Your task to perform on an android device: set the stopwatch Image 0: 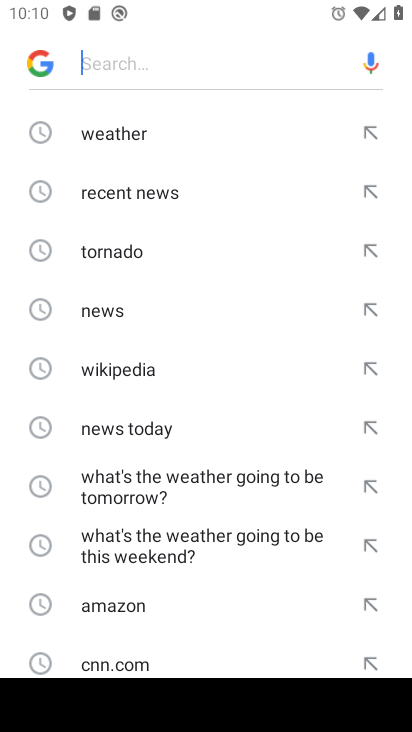
Step 0: press home button
Your task to perform on an android device: set the stopwatch Image 1: 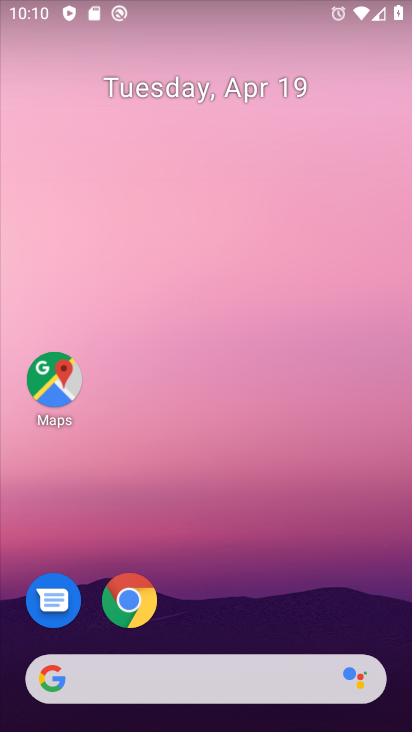
Step 1: drag from (237, 610) to (279, 18)
Your task to perform on an android device: set the stopwatch Image 2: 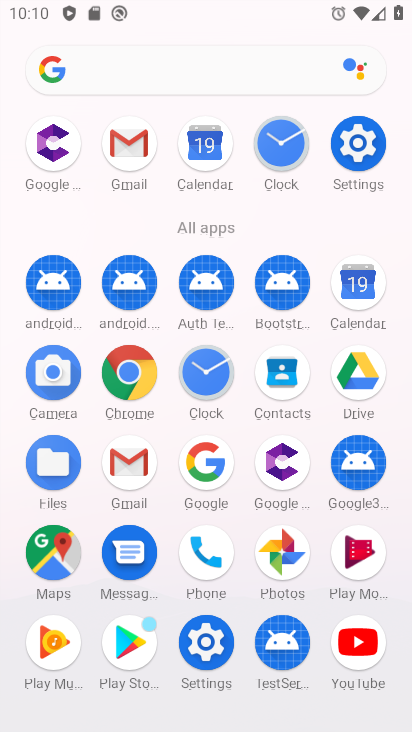
Step 2: click (211, 375)
Your task to perform on an android device: set the stopwatch Image 3: 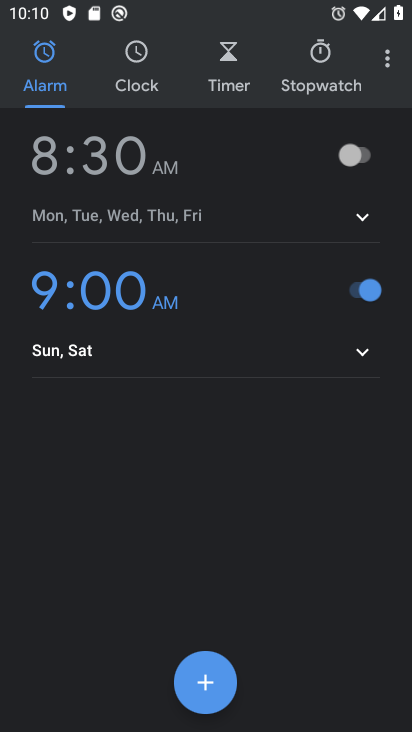
Step 3: click (311, 77)
Your task to perform on an android device: set the stopwatch Image 4: 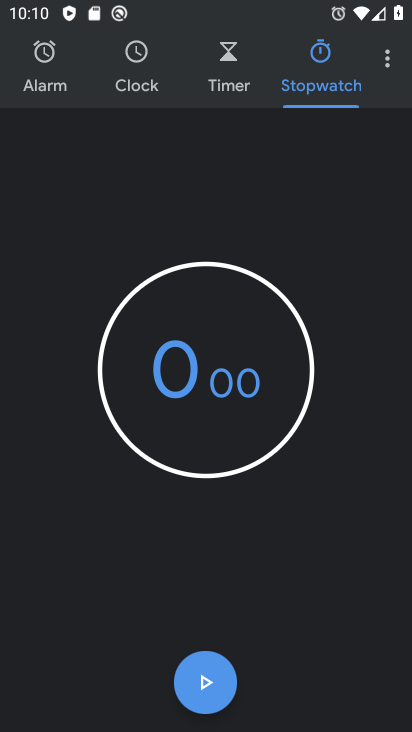
Step 4: click (207, 667)
Your task to perform on an android device: set the stopwatch Image 5: 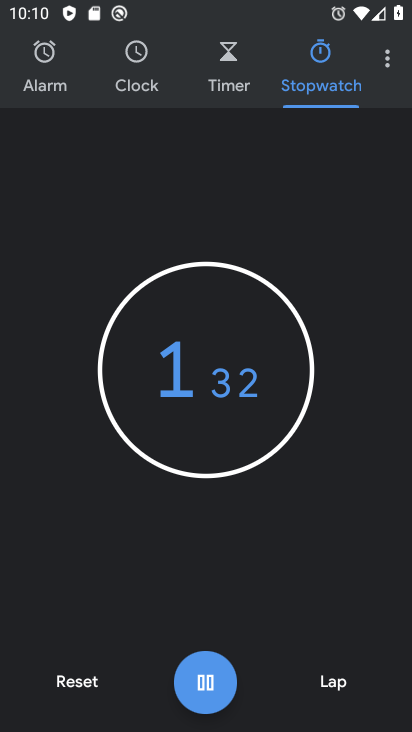
Step 5: task complete